Your task to perform on an android device: What is the news today? Image 0: 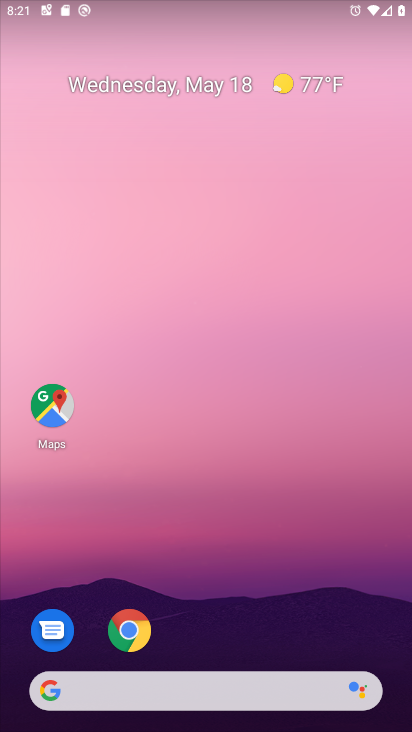
Step 0: drag from (268, 647) to (273, 360)
Your task to perform on an android device: What is the news today? Image 1: 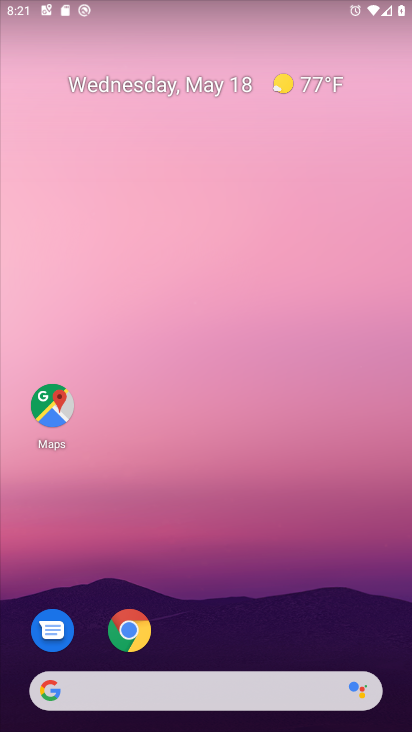
Step 1: drag from (264, 637) to (408, 7)
Your task to perform on an android device: What is the news today? Image 2: 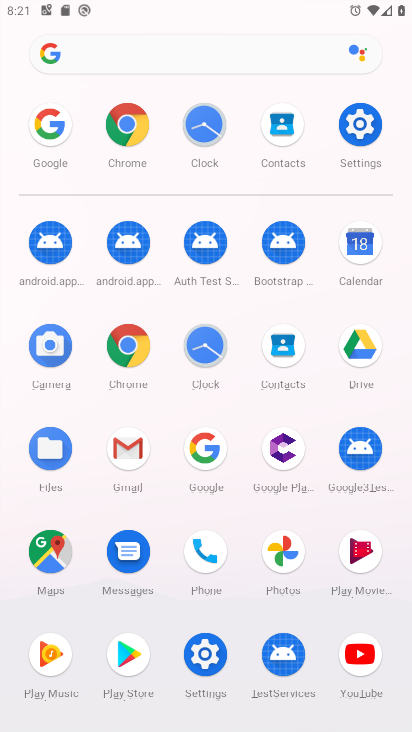
Step 2: click (358, 256)
Your task to perform on an android device: What is the news today? Image 3: 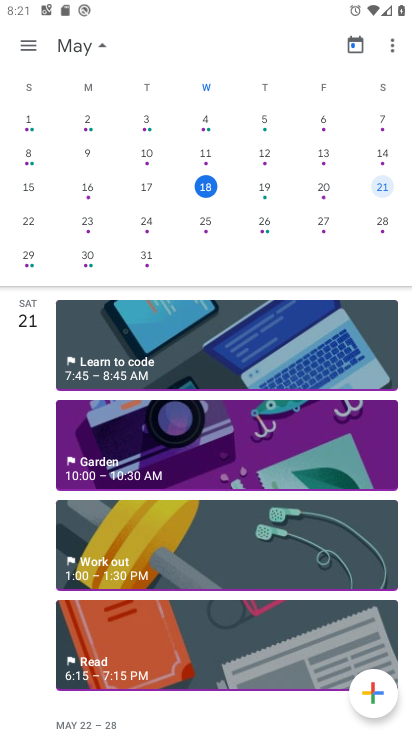
Step 3: click (211, 189)
Your task to perform on an android device: What is the news today? Image 4: 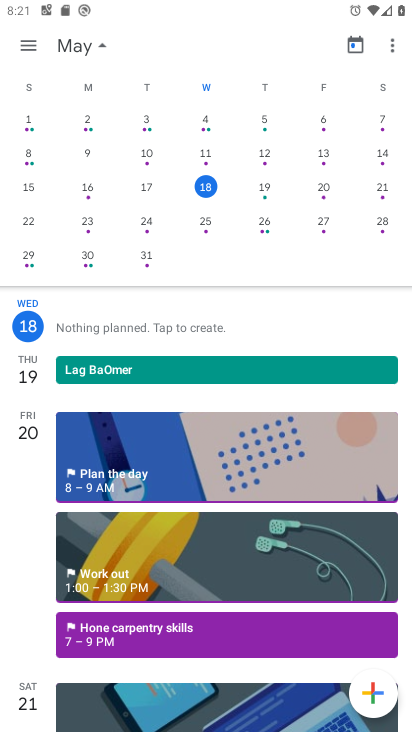
Step 4: task complete